Your task to perform on an android device: Show the shopping cart on target.com. Add asus zenbook to the cart on target.com, then select checkout. Image 0: 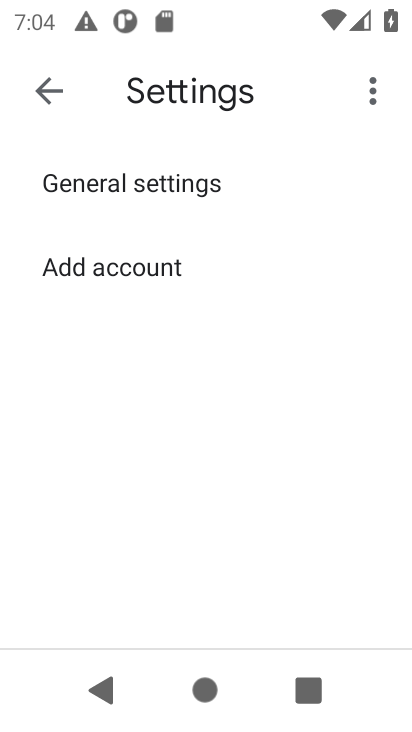
Step 0: press home button
Your task to perform on an android device: Show the shopping cart on target.com. Add asus zenbook to the cart on target.com, then select checkout. Image 1: 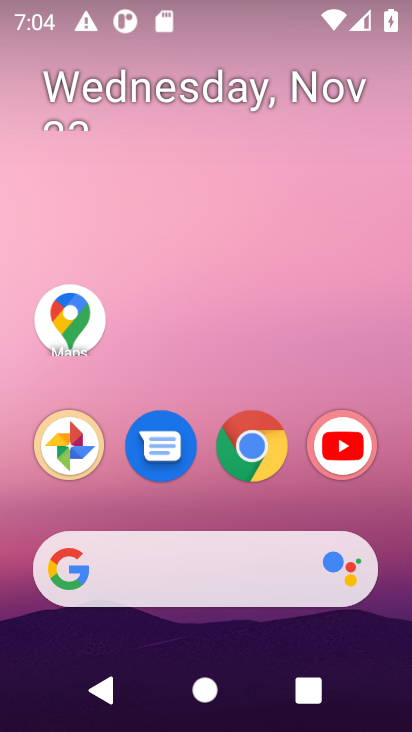
Step 1: click (215, 600)
Your task to perform on an android device: Show the shopping cart on target.com. Add asus zenbook to the cart on target.com, then select checkout. Image 2: 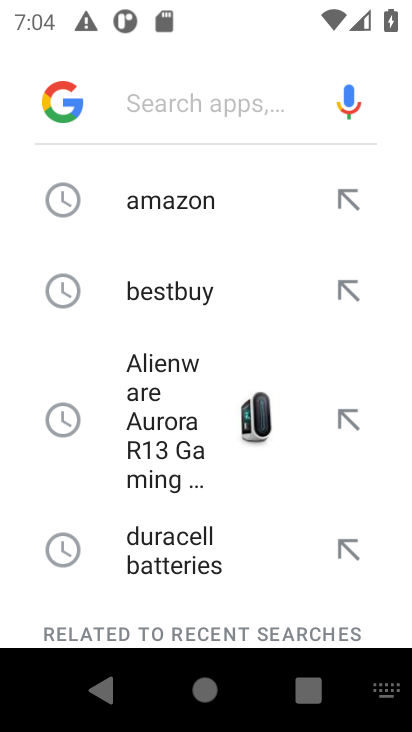
Step 2: type "target.com"
Your task to perform on an android device: Show the shopping cart on target.com. Add asus zenbook to the cart on target.com, then select checkout. Image 3: 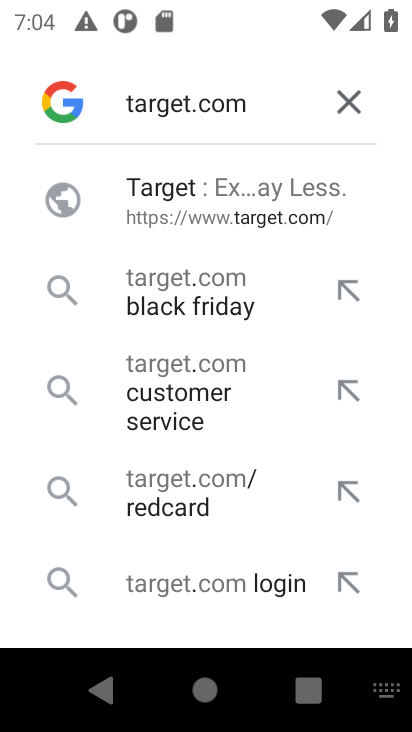
Step 3: click (148, 197)
Your task to perform on an android device: Show the shopping cart on target.com. Add asus zenbook to the cart on target.com, then select checkout. Image 4: 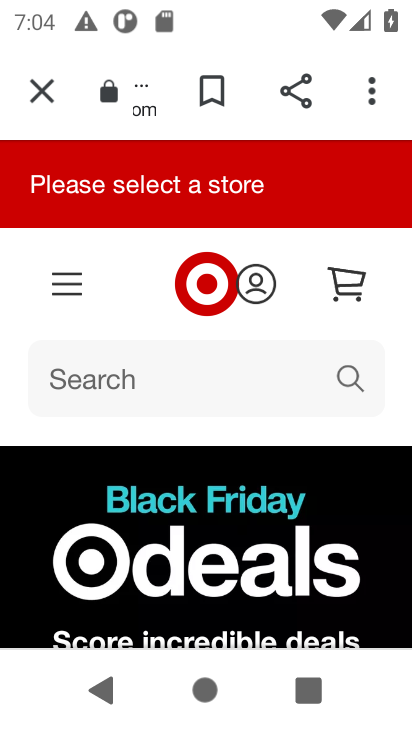
Step 4: click (145, 380)
Your task to perform on an android device: Show the shopping cart on target.com. Add asus zenbook to the cart on target.com, then select checkout. Image 5: 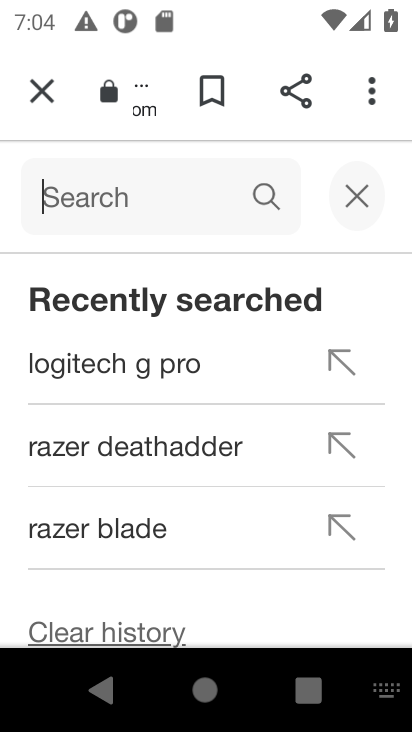
Step 5: type "asus zenbook"
Your task to perform on an android device: Show the shopping cart on target.com. Add asus zenbook to the cart on target.com, then select checkout. Image 6: 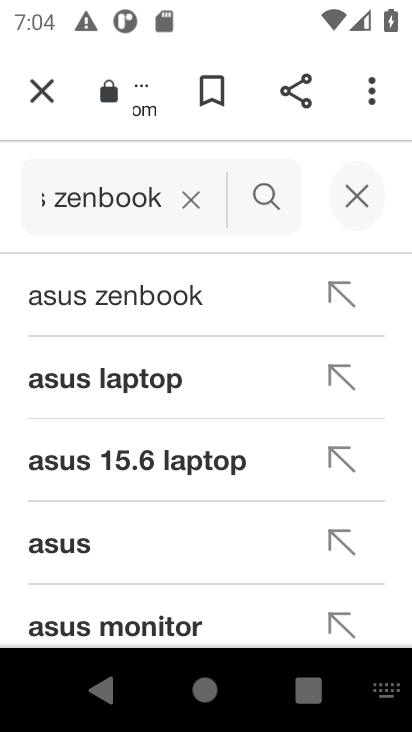
Step 6: click (173, 278)
Your task to perform on an android device: Show the shopping cart on target.com. Add asus zenbook to the cart on target.com, then select checkout. Image 7: 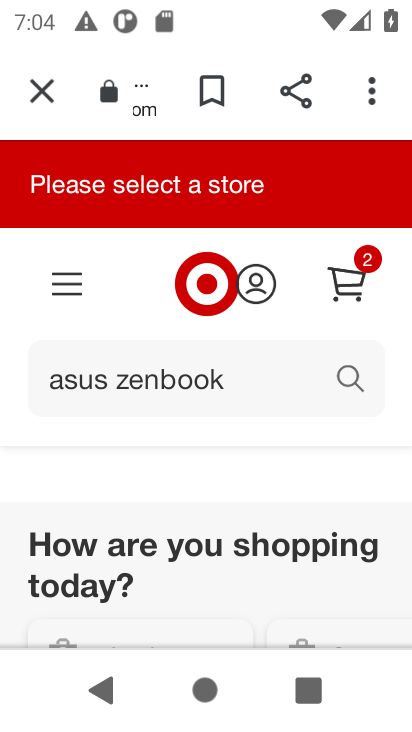
Step 7: drag from (212, 541) to (282, 186)
Your task to perform on an android device: Show the shopping cart on target.com. Add asus zenbook to the cart on target.com, then select checkout. Image 8: 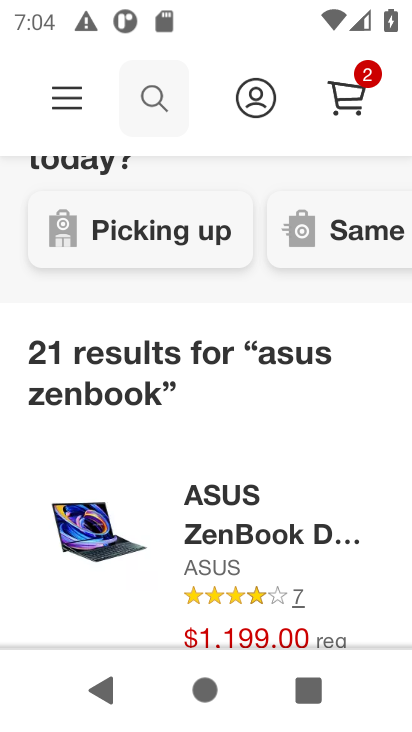
Step 8: click (256, 599)
Your task to perform on an android device: Show the shopping cart on target.com. Add asus zenbook to the cart on target.com, then select checkout. Image 9: 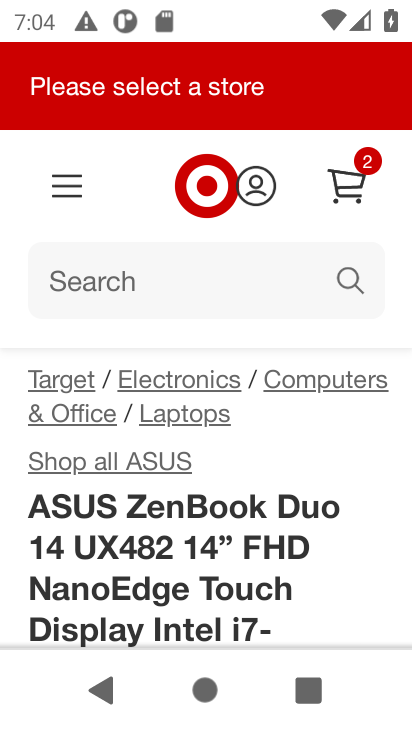
Step 9: drag from (256, 599) to (270, 295)
Your task to perform on an android device: Show the shopping cart on target.com. Add asus zenbook to the cart on target.com, then select checkout. Image 10: 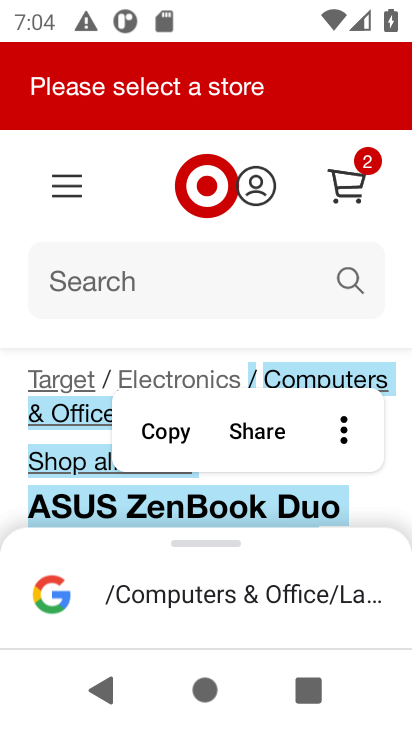
Step 10: click (378, 504)
Your task to perform on an android device: Show the shopping cart on target.com. Add asus zenbook to the cart on target.com, then select checkout. Image 11: 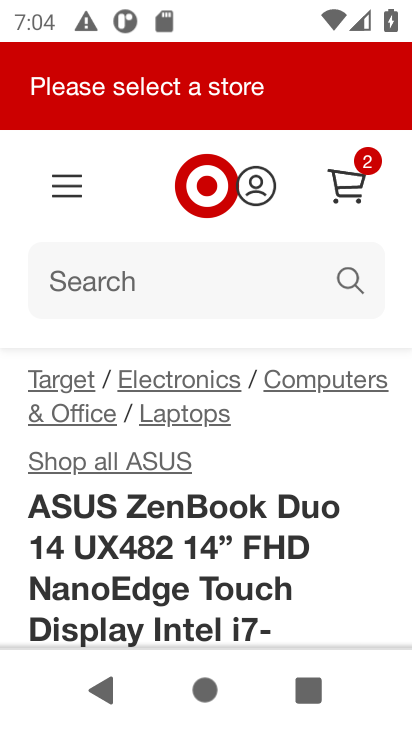
Step 11: drag from (325, 585) to (337, 297)
Your task to perform on an android device: Show the shopping cart on target.com. Add asus zenbook to the cart on target.com, then select checkout. Image 12: 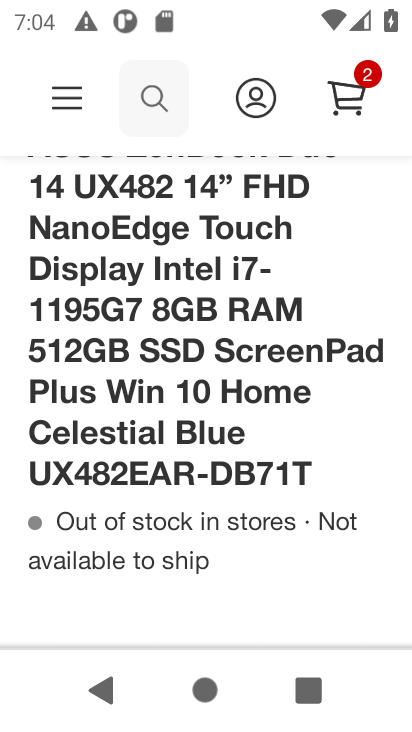
Step 12: drag from (297, 599) to (407, 498)
Your task to perform on an android device: Show the shopping cart on target.com. Add asus zenbook to the cart on target.com, then select checkout. Image 13: 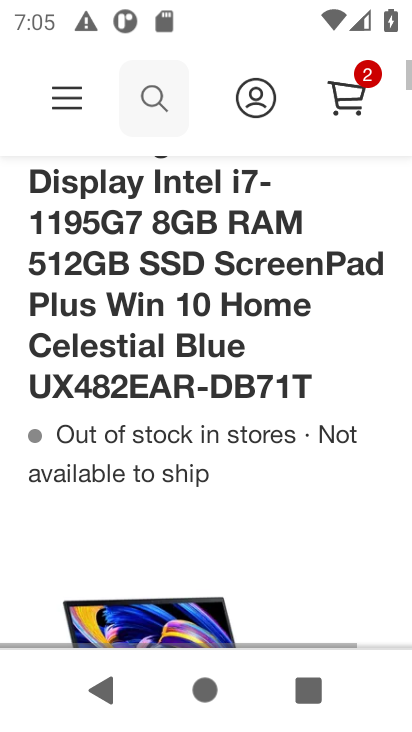
Step 13: drag from (337, 519) to (344, 186)
Your task to perform on an android device: Show the shopping cart on target.com. Add asus zenbook to the cart on target.com, then select checkout. Image 14: 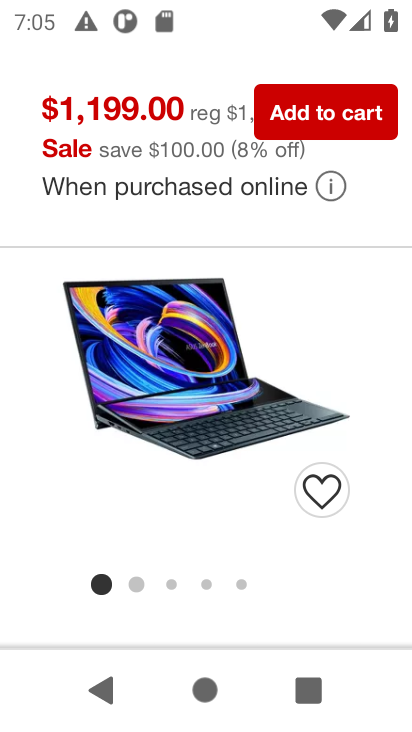
Step 14: click (343, 115)
Your task to perform on an android device: Show the shopping cart on target.com. Add asus zenbook to the cart on target.com, then select checkout. Image 15: 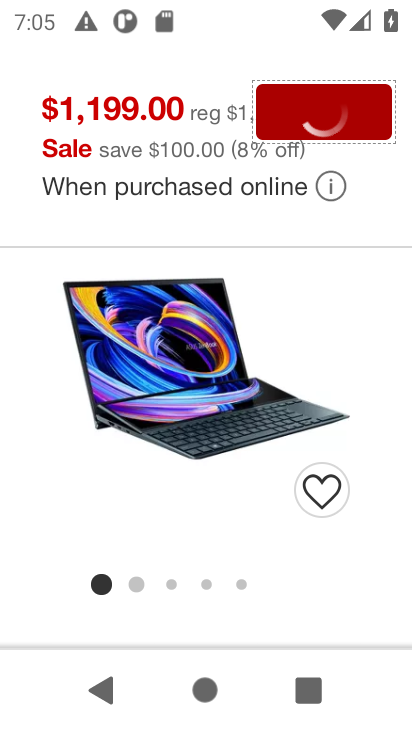
Step 15: task complete